Your task to perform on an android device: Open calendar and show me the first week of next month Image 0: 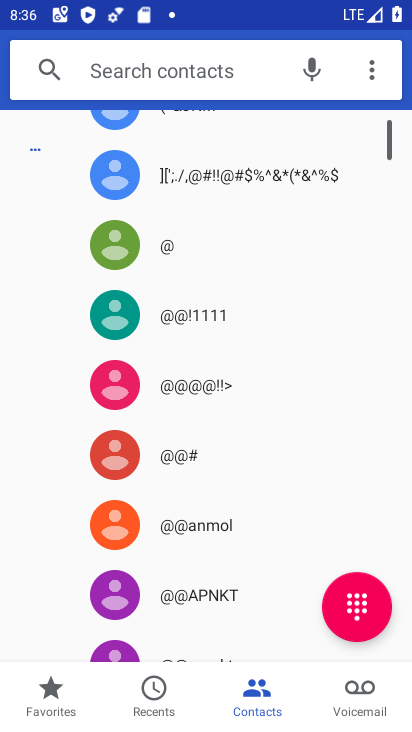
Step 0: press back button
Your task to perform on an android device: Open calendar and show me the first week of next month Image 1: 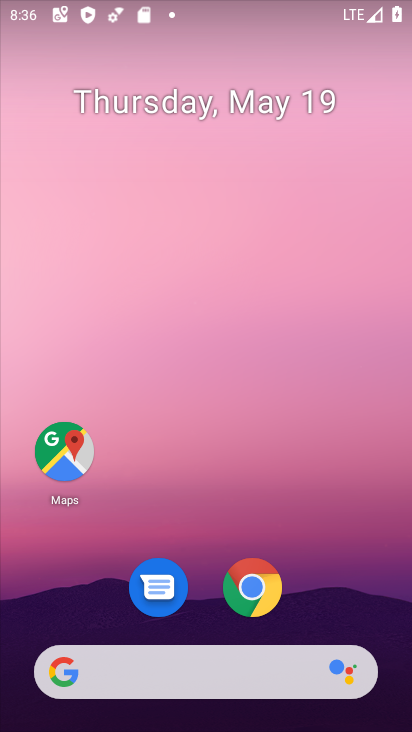
Step 1: drag from (330, 595) to (225, 52)
Your task to perform on an android device: Open calendar and show me the first week of next month Image 2: 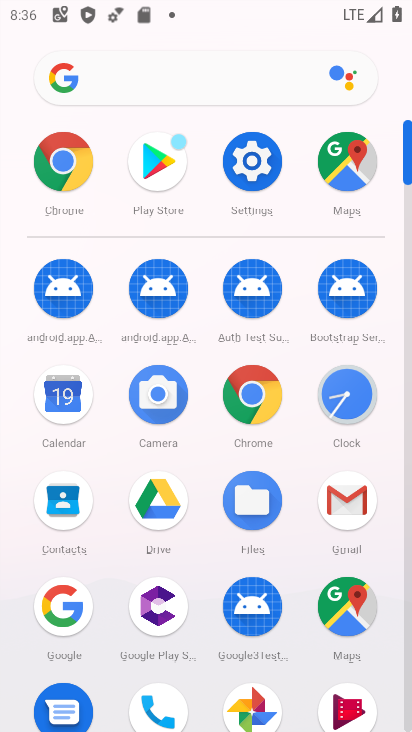
Step 2: drag from (14, 572) to (16, 276)
Your task to perform on an android device: Open calendar and show me the first week of next month Image 3: 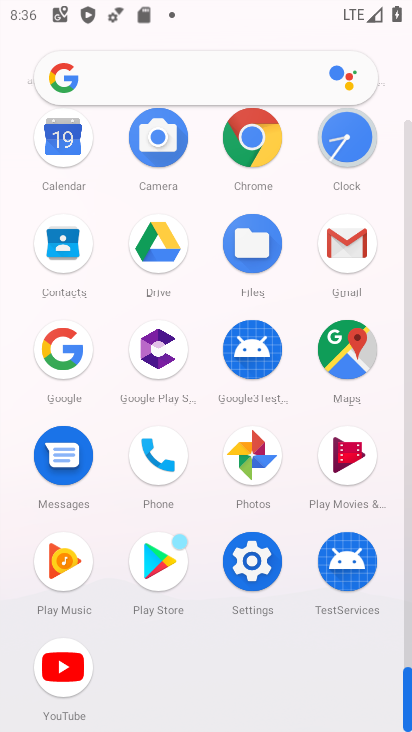
Step 3: click (60, 140)
Your task to perform on an android device: Open calendar and show me the first week of next month Image 4: 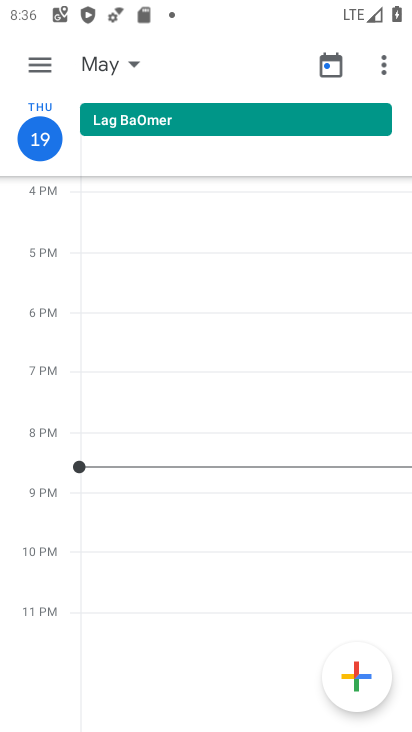
Step 4: click (131, 60)
Your task to perform on an android device: Open calendar and show me the first week of next month Image 5: 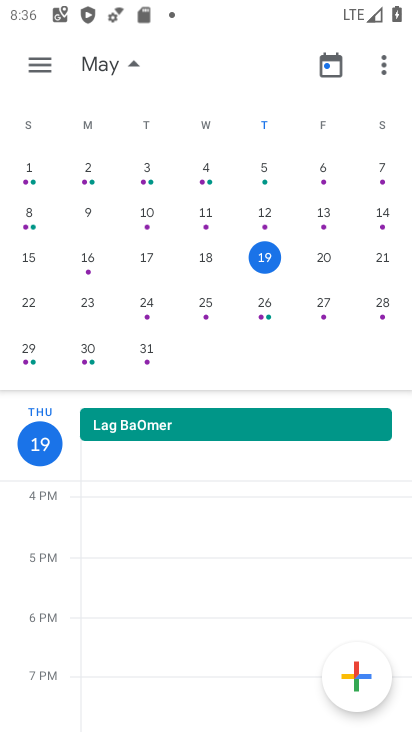
Step 5: drag from (379, 208) to (4, 182)
Your task to perform on an android device: Open calendar and show me the first week of next month Image 6: 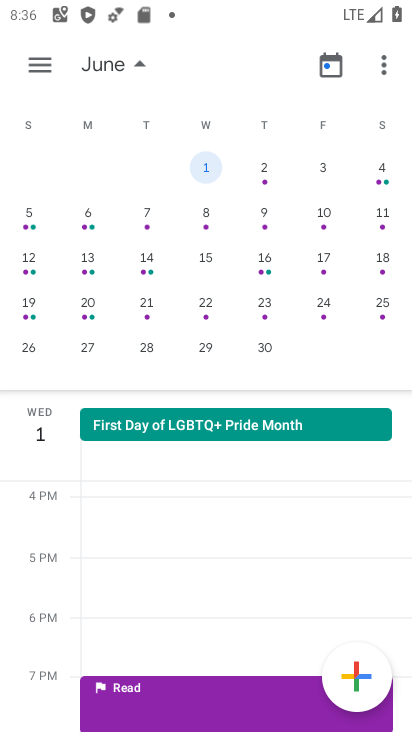
Step 6: click (34, 59)
Your task to perform on an android device: Open calendar and show me the first week of next month Image 7: 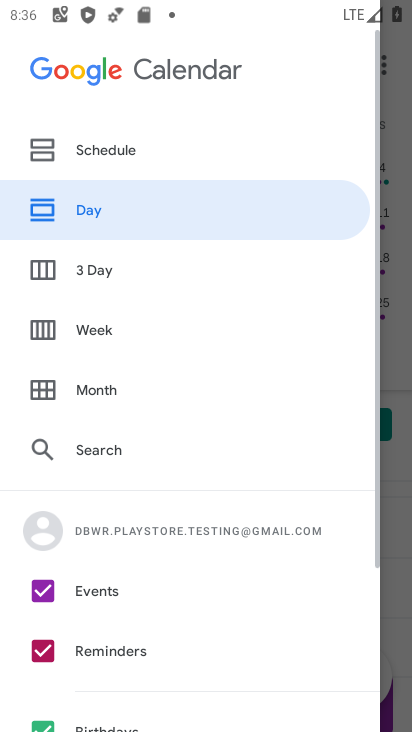
Step 7: click (102, 326)
Your task to perform on an android device: Open calendar and show me the first week of next month Image 8: 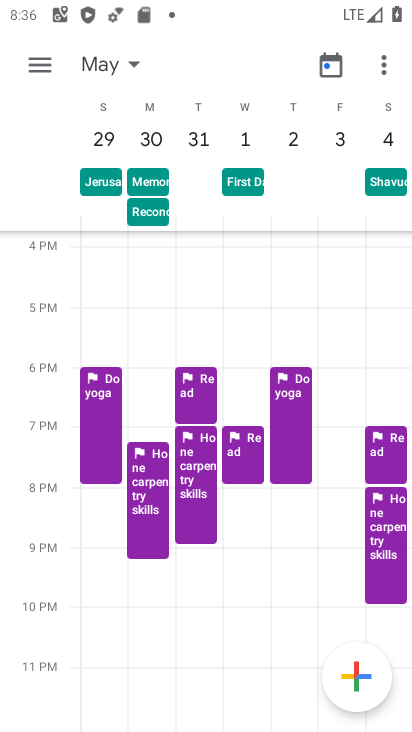
Step 8: task complete